Your task to perform on an android device: Turn off the flashlight Image 0: 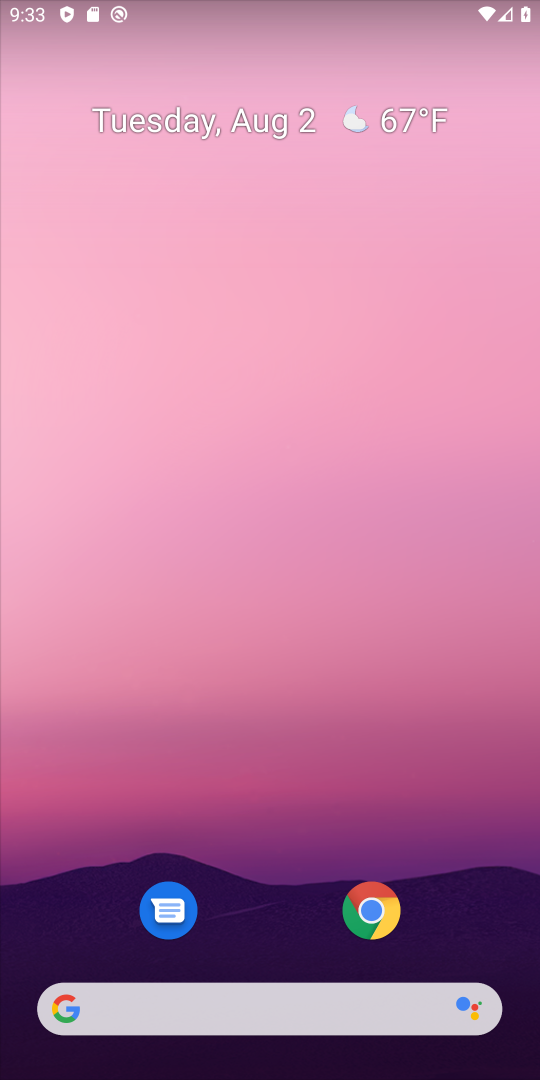
Step 0: drag from (302, 1000) to (352, 398)
Your task to perform on an android device: Turn off the flashlight Image 1: 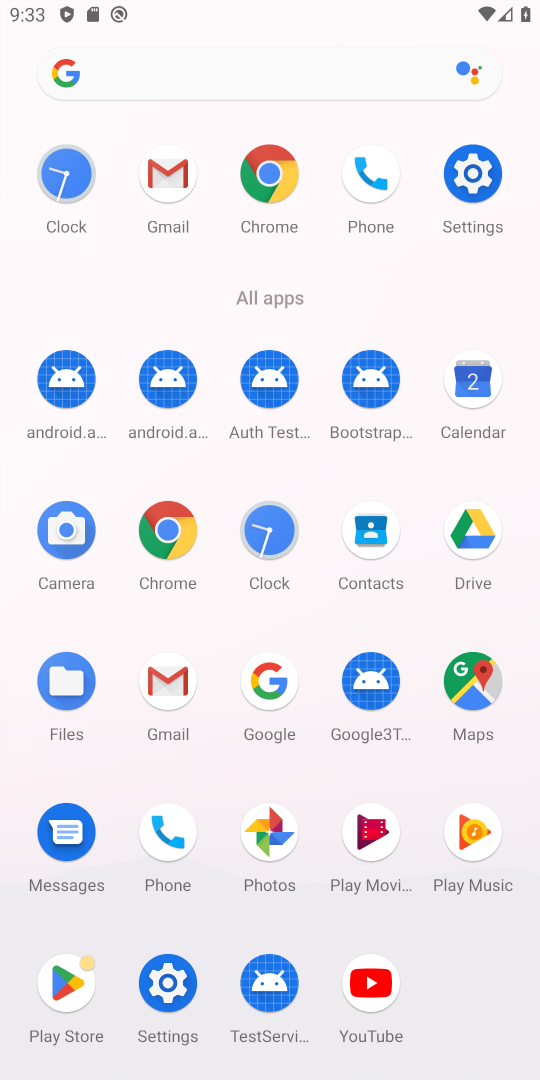
Step 1: click (471, 161)
Your task to perform on an android device: Turn off the flashlight Image 2: 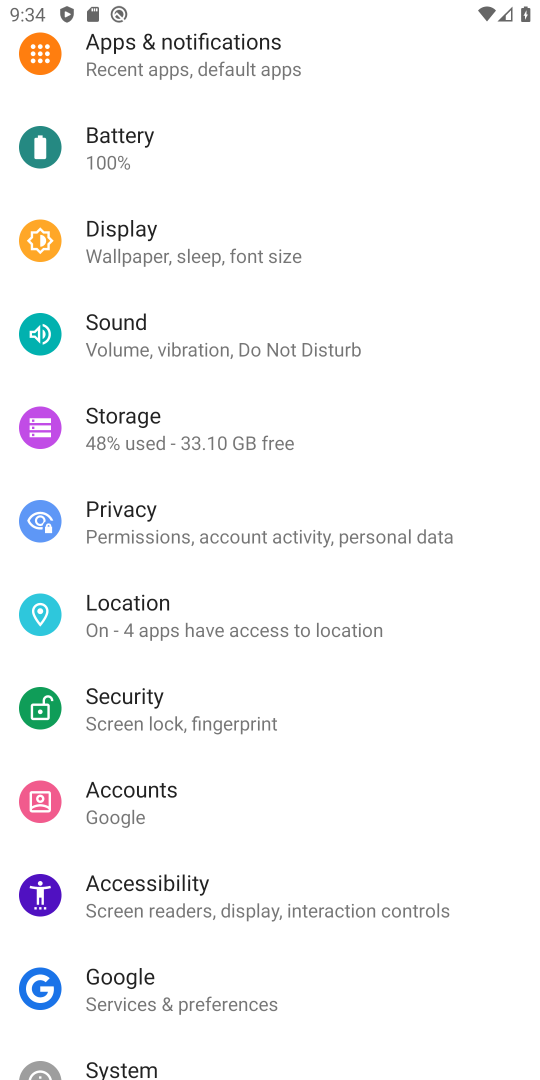
Step 2: task complete